Your task to perform on an android device: Open Chrome and go to settings Image 0: 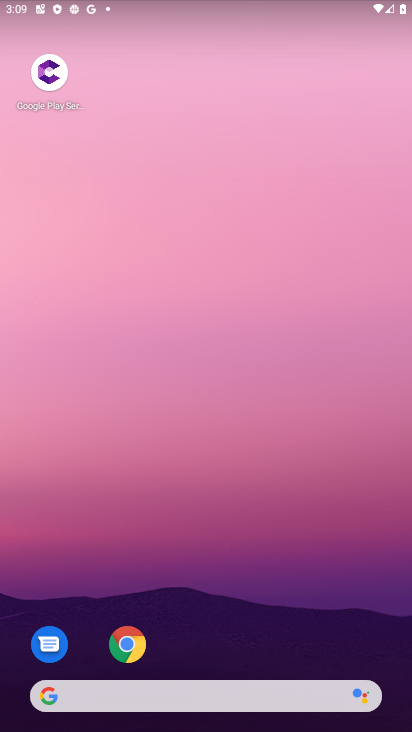
Step 0: click (135, 650)
Your task to perform on an android device: Open Chrome and go to settings Image 1: 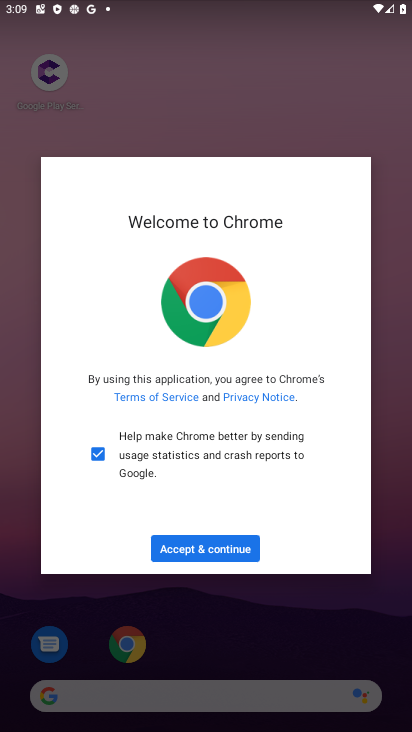
Step 1: click (223, 554)
Your task to perform on an android device: Open Chrome and go to settings Image 2: 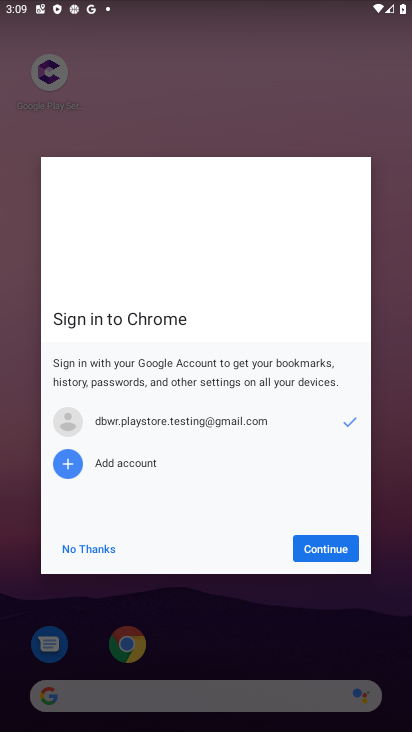
Step 2: click (316, 548)
Your task to perform on an android device: Open Chrome and go to settings Image 3: 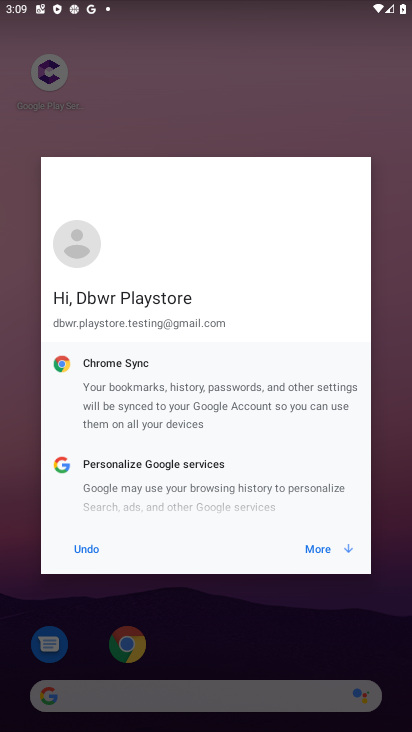
Step 3: click (314, 551)
Your task to perform on an android device: Open Chrome and go to settings Image 4: 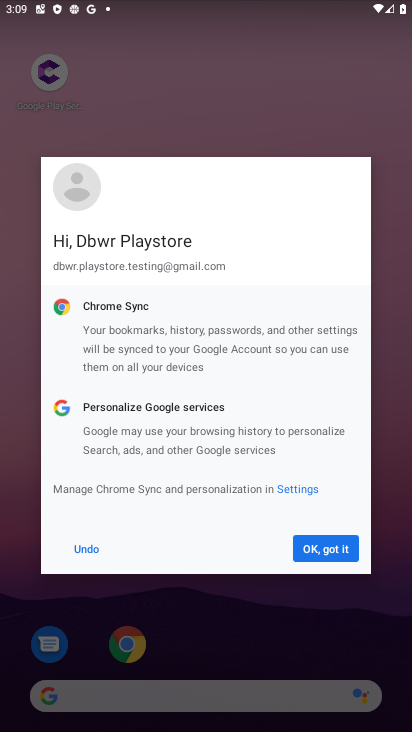
Step 4: click (343, 549)
Your task to perform on an android device: Open Chrome and go to settings Image 5: 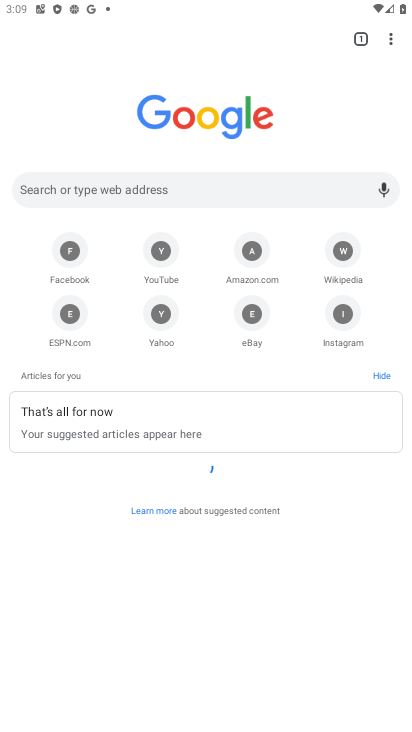
Step 5: task complete